Your task to perform on an android device: turn vacation reply on in the gmail app Image 0: 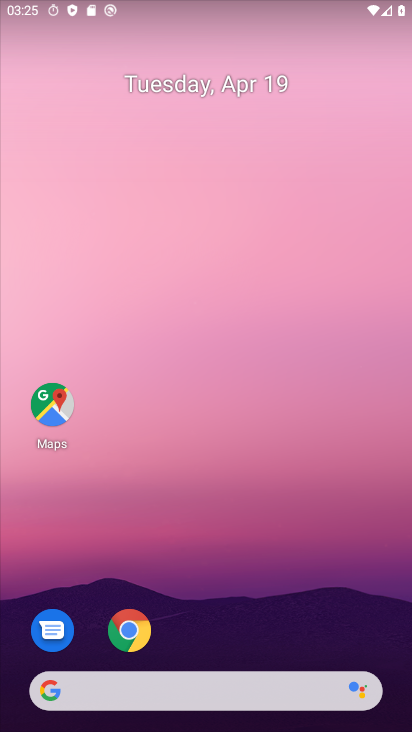
Step 0: drag from (264, 621) to (316, 110)
Your task to perform on an android device: turn vacation reply on in the gmail app Image 1: 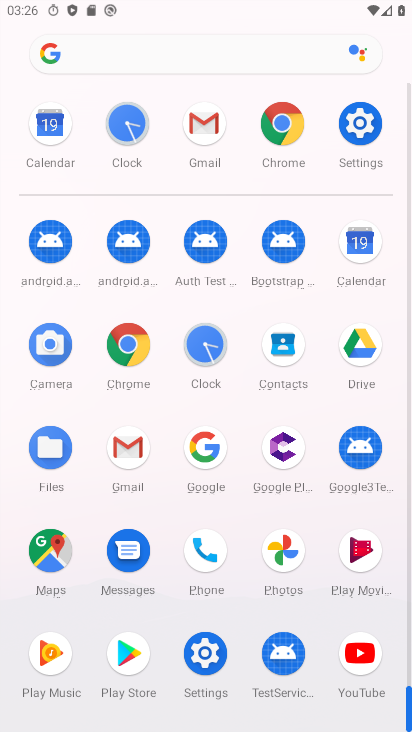
Step 1: click (117, 446)
Your task to perform on an android device: turn vacation reply on in the gmail app Image 2: 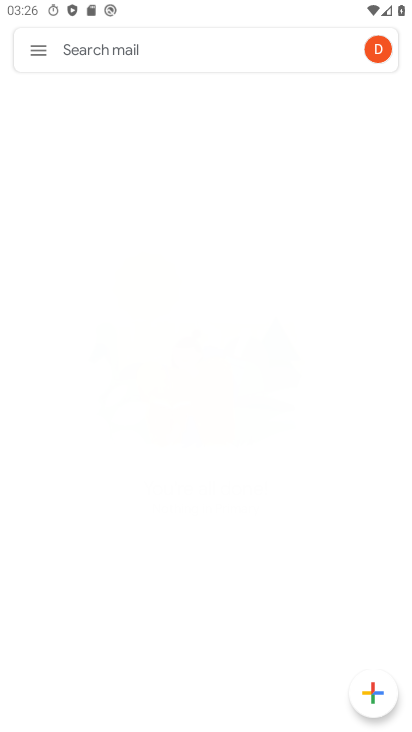
Step 2: click (41, 53)
Your task to perform on an android device: turn vacation reply on in the gmail app Image 3: 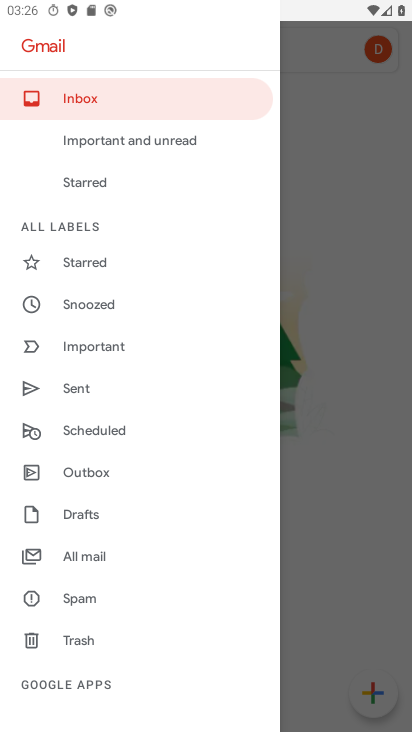
Step 3: drag from (129, 634) to (159, 340)
Your task to perform on an android device: turn vacation reply on in the gmail app Image 4: 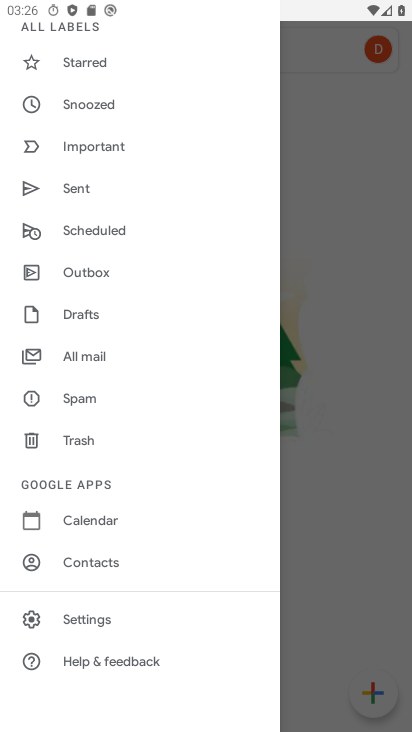
Step 4: click (118, 617)
Your task to perform on an android device: turn vacation reply on in the gmail app Image 5: 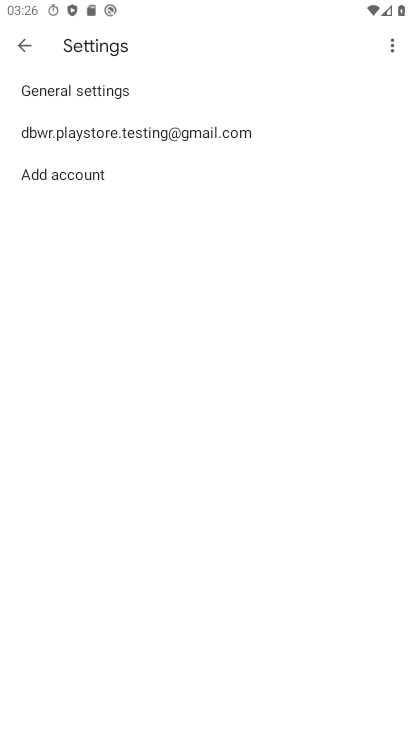
Step 5: click (132, 133)
Your task to perform on an android device: turn vacation reply on in the gmail app Image 6: 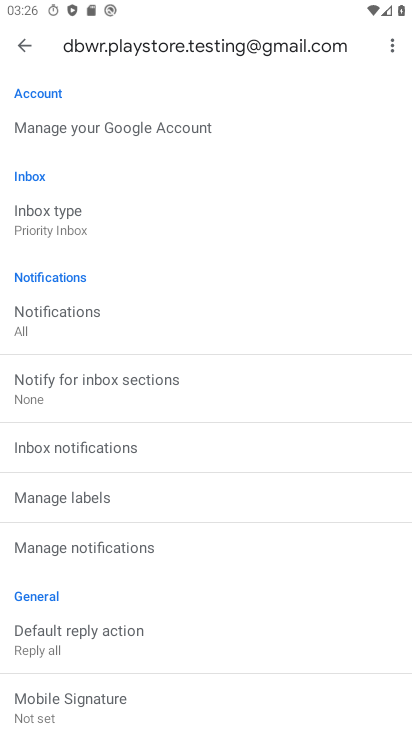
Step 6: drag from (240, 633) to (310, 289)
Your task to perform on an android device: turn vacation reply on in the gmail app Image 7: 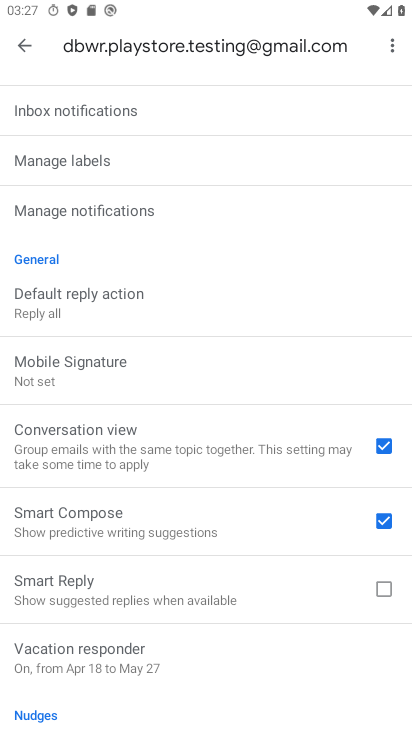
Step 7: drag from (259, 663) to (306, 247)
Your task to perform on an android device: turn vacation reply on in the gmail app Image 8: 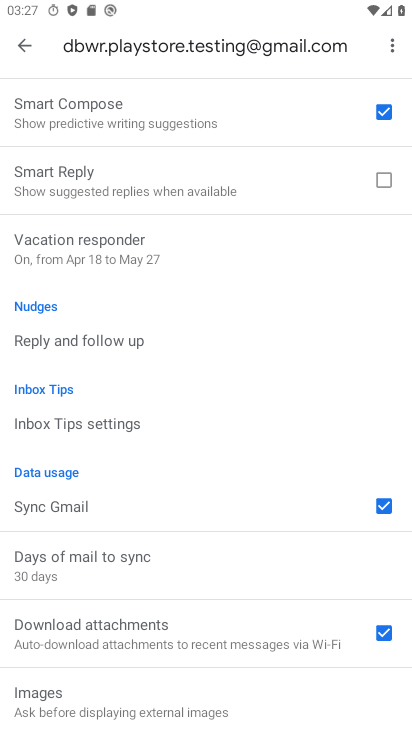
Step 8: click (139, 258)
Your task to perform on an android device: turn vacation reply on in the gmail app Image 9: 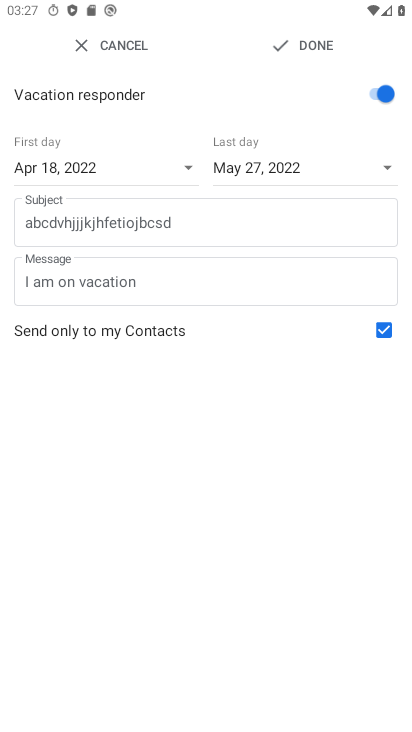
Step 9: click (302, 47)
Your task to perform on an android device: turn vacation reply on in the gmail app Image 10: 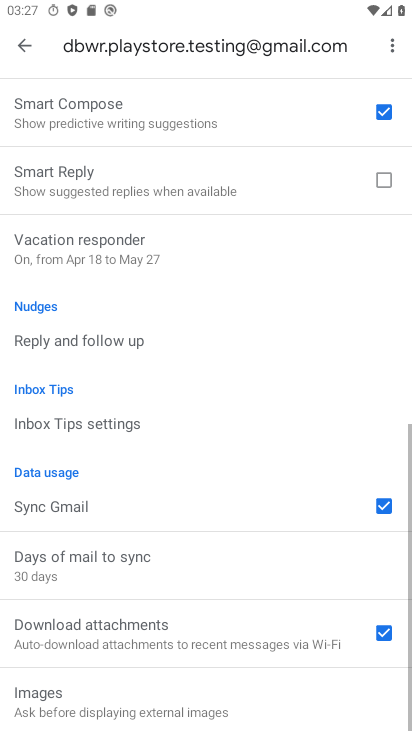
Step 10: task complete